Your task to perform on an android device: Open battery settings Image 0: 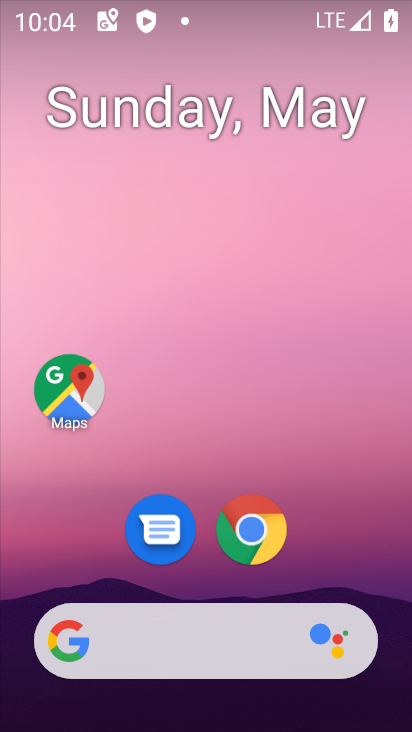
Step 0: drag from (391, 560) to (376, 500)
Your task to perform on an android device: Open battery settings Image 1: 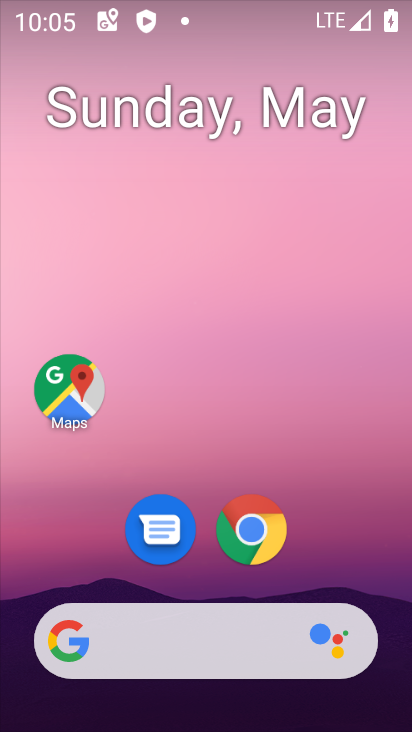
Step 1: drag from (376, 574) to (285, 32)
Your task to perform on an android device: Open battery settings Image 2: 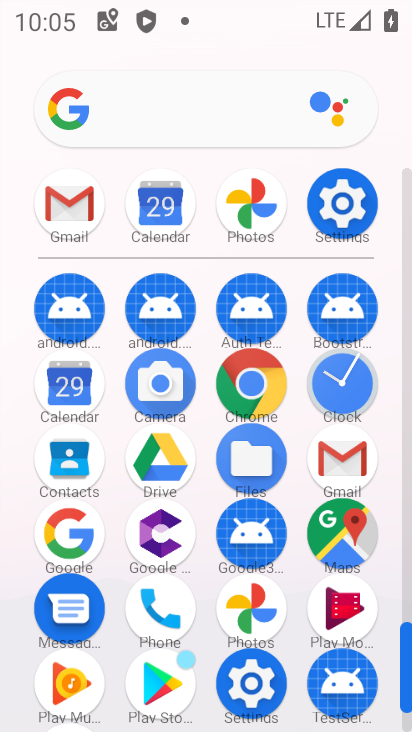
Step 2: click (337, 197)
Your task to perform on an android device: Open battery settings Image 3: 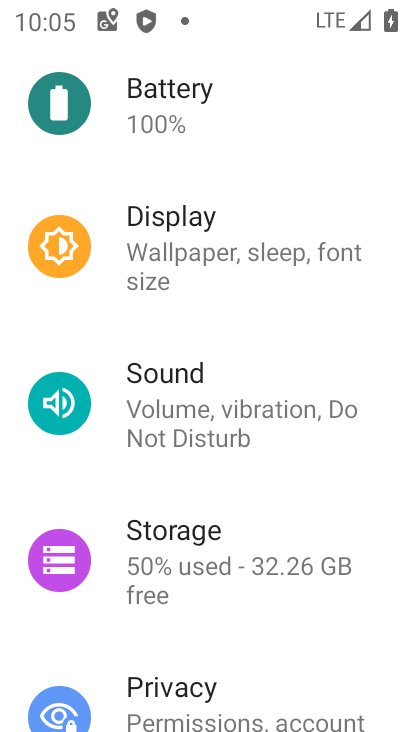
Step 3: click (175, 89)
Your task to perform on an android device: Open battery settings Image 4: 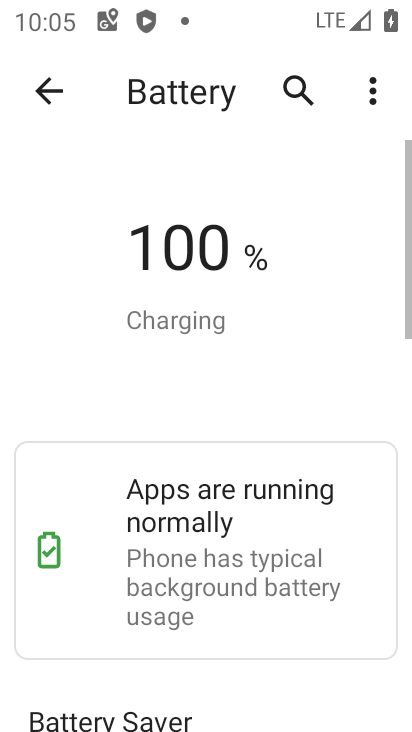
Step 4: task complete